Your task to perform on an android device: Go to eBay Image 0: 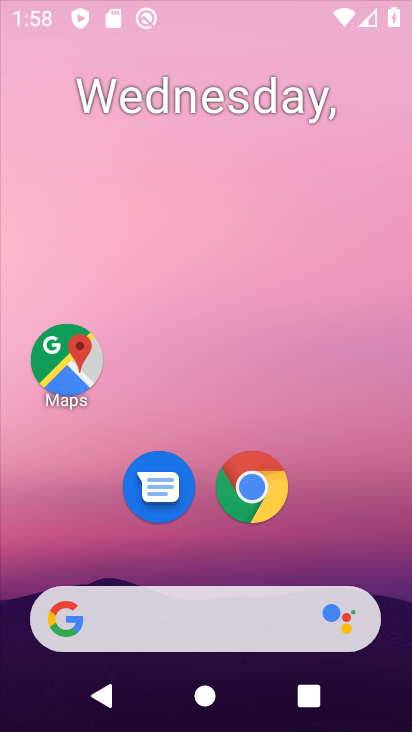
Step 0: drag from (324, 543) to (235, 67)
Your task to perform on an android device: Go to eBay Image 1: 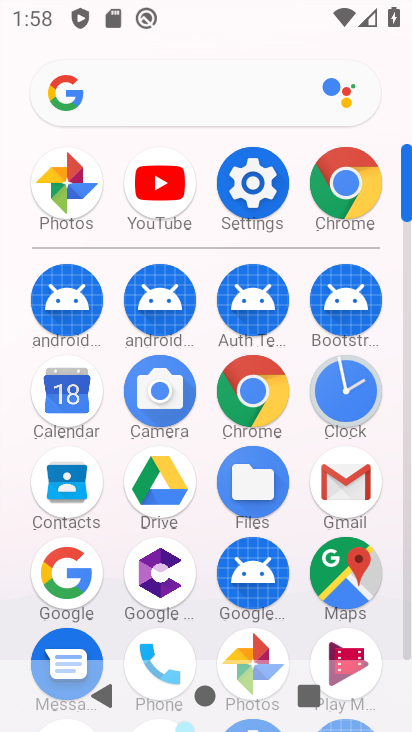
Step 1: click (344, 175)
Your task to perform on an android device: Go to eBay Image 2: 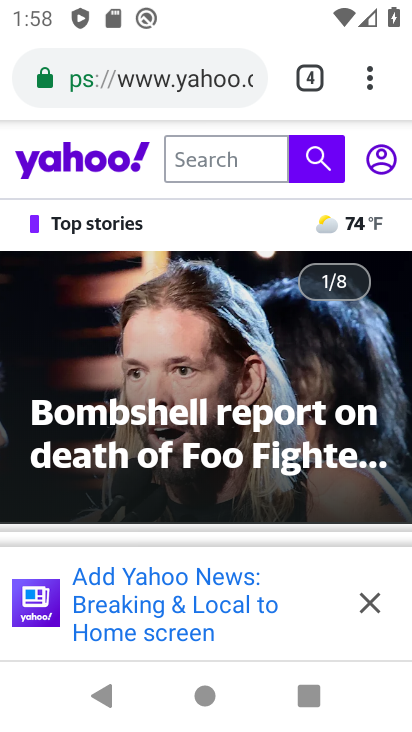
Step 2: click (364, 82)
Your task to perform on an android device: Go to eBay Image 3: 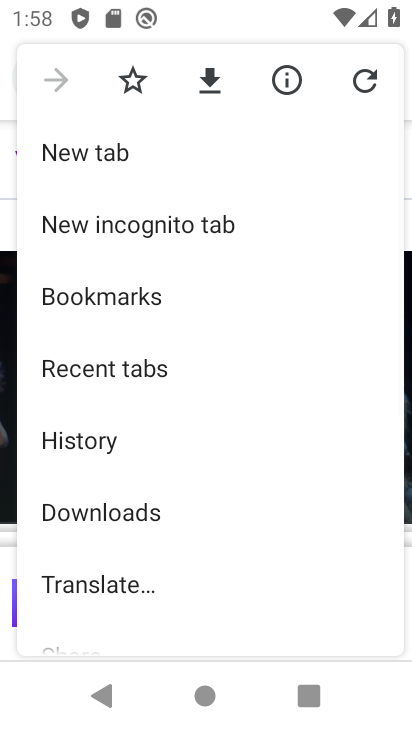
Step 3: click (109, 152)
Your task to perform on an android device: Go to eBay Image 4: 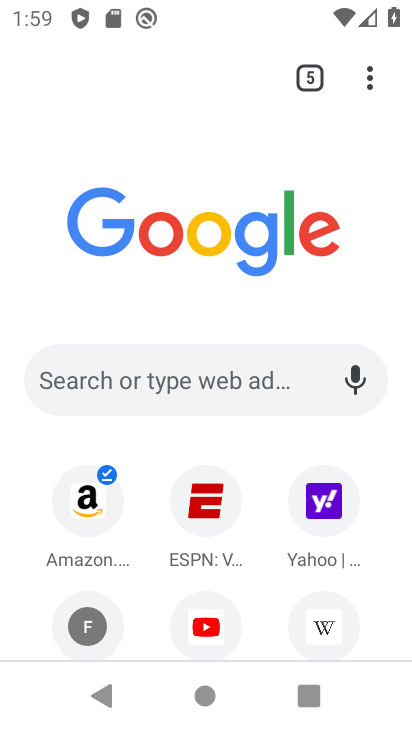
Step 4: click (213, 533)
Your task to perform on an android device: Go to eBay Image 5: 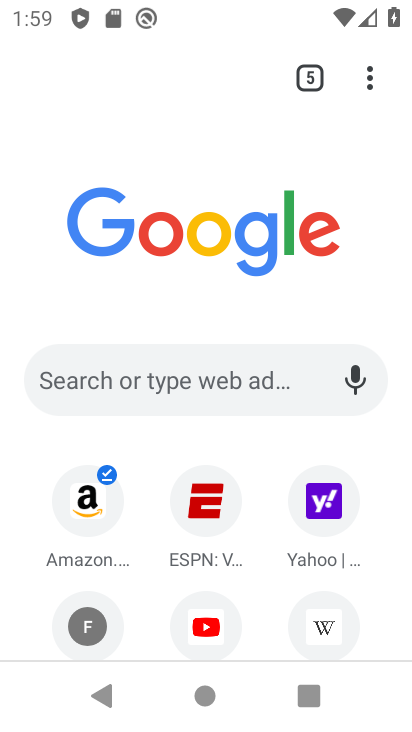
Step 5: click (164, 376)
Your task to perform on an android device: Go to eBay Image 6: 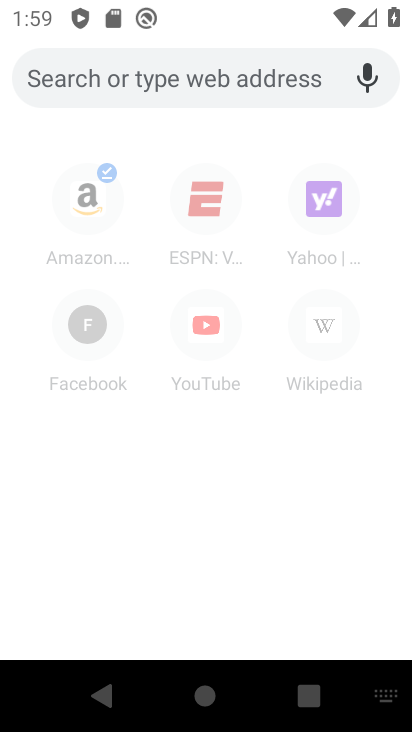
Step 6: type "ebay"
Your task to perform on an android device: Go to eBay Image 7: 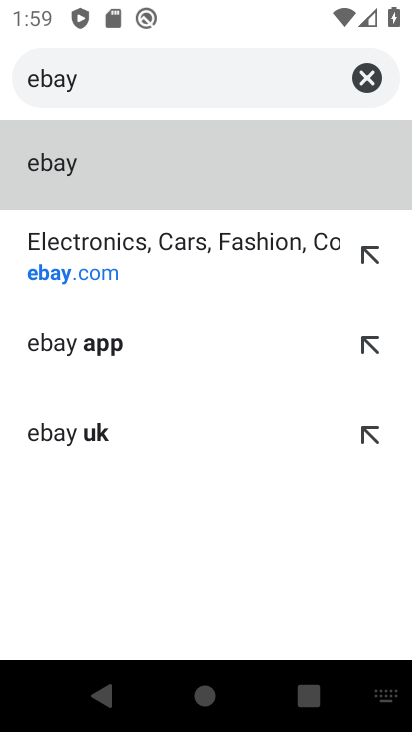
Step 7: click (93, 154)
Your task to perform on an android device: Go to eBay Image 8: 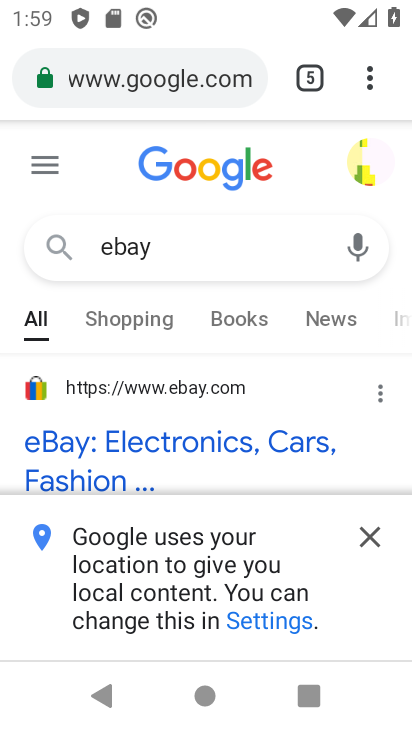
Step 8: task complete